Your task to perform on an android device: search for starred emails in the gmail app Image 0: 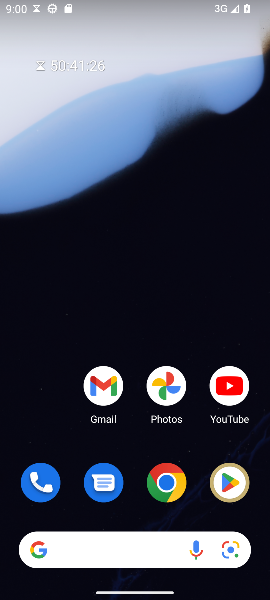
Step 0: drag from (125, 460) to (220, 113)
Your task to perform on an android device: search for starred emails in the gmail app Image 1: 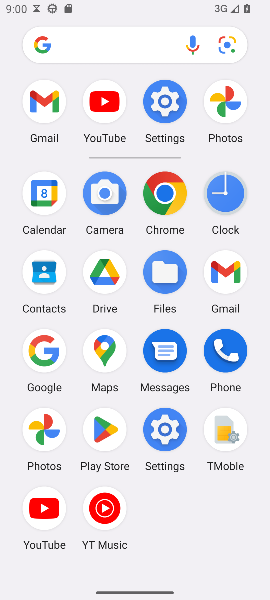
Step 1: click (49, 114)
Your task to perform on an android device: search for starred emails in the gmail app Image 2: 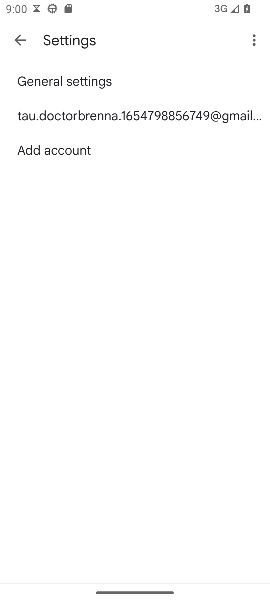
Step 2: click (26, 43)
Your task to perform on an android device: search for starred emails in the gmail app Image 3: 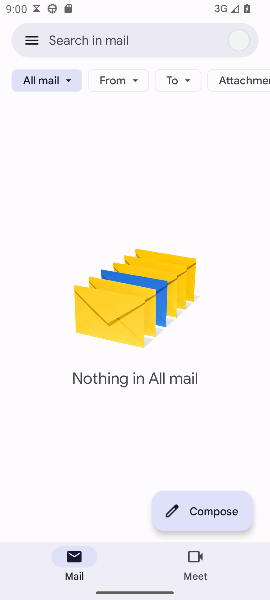
Step 3: click (26, 43)
Your task to perform on an android device: search for starred emails in the gmail app Image 4: 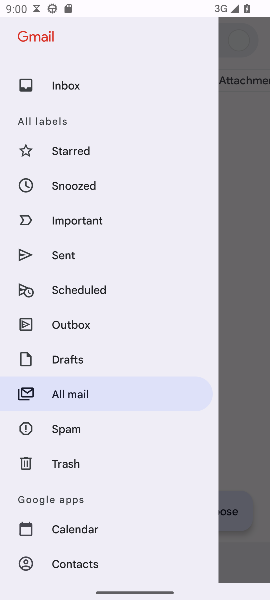
Step 4: click (85, 153)
Your task to perform on an android device: search for starred emails in the gmail app Image 5: 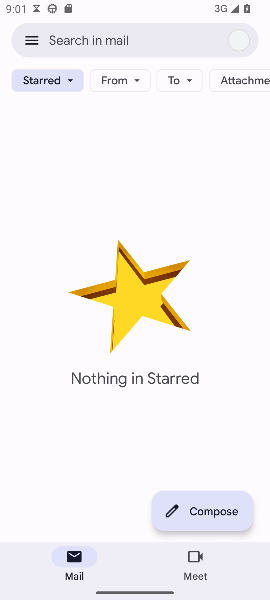
Step 5: task complete